Your task to perform on an android device: Open calendar and show me the second week of next month Image 0: 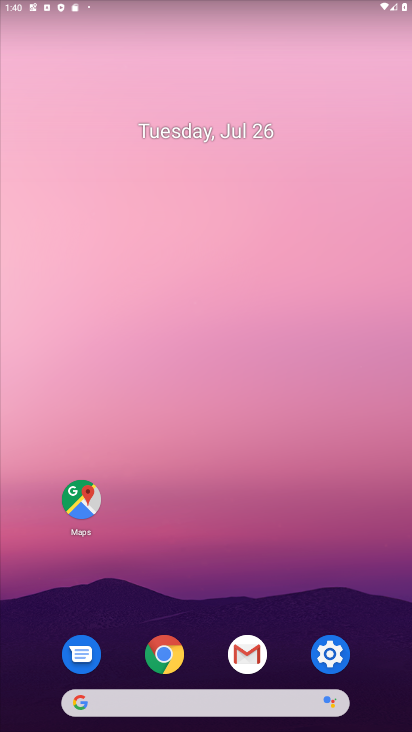
Step 0: drag from (277, 685) to (262, 301)
Your task to perform on an android device: Open calendar and show me the second week of next month Image 1: 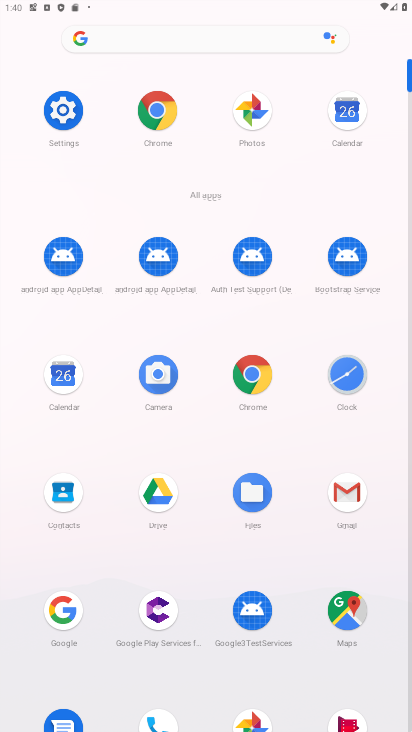
Step 1: click (62, 386)
Your task to perform on an android device: Open calendar and show me the second week of next month Image 2: 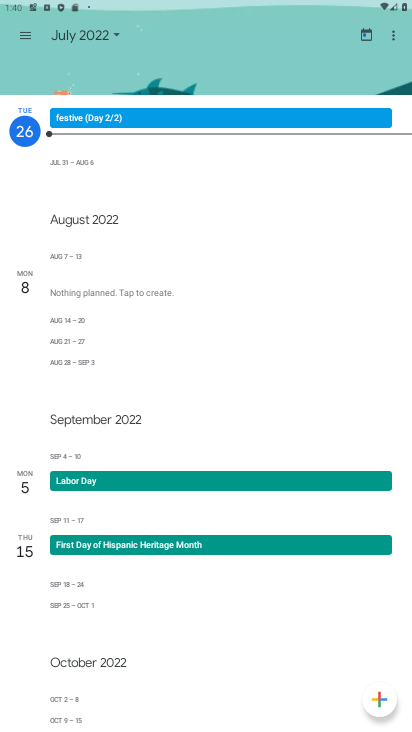
Step 2: click (18, 40)
Your task to perform on an android device: Open calendar and show me the second week of next month Image 3: 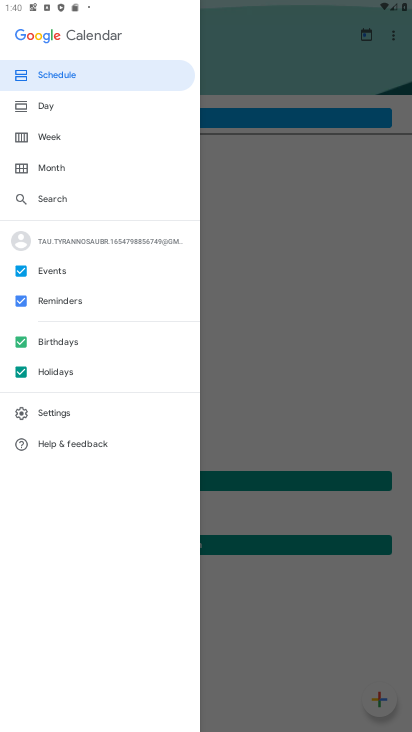
Step 3: click (72, 175)
Your task to perform on an android device: Open calendar and show me the second week of next month Image 4: 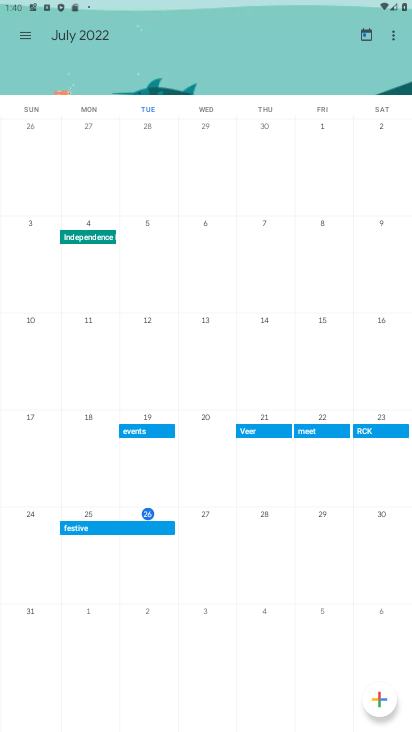
Step 4: drag from (391, 437) to (20, 521)
Your task to perform on an android device: Open calendar and show me the second week of next month Image 5: 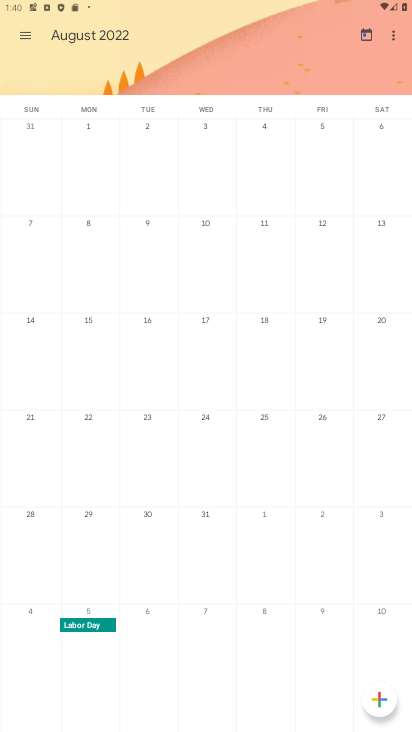
Step 5: drag from (387, 468) to (349, 480)
Your task to perform on an android device: Open calendar and show me the second week of next month Image 6: 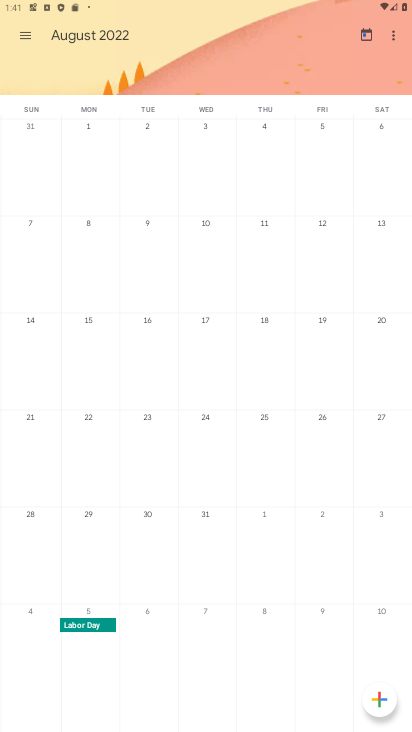
Step 6: click (85, 230)
Your task to perform on an android device: Open calendar and show me the second week of next month Image 7: 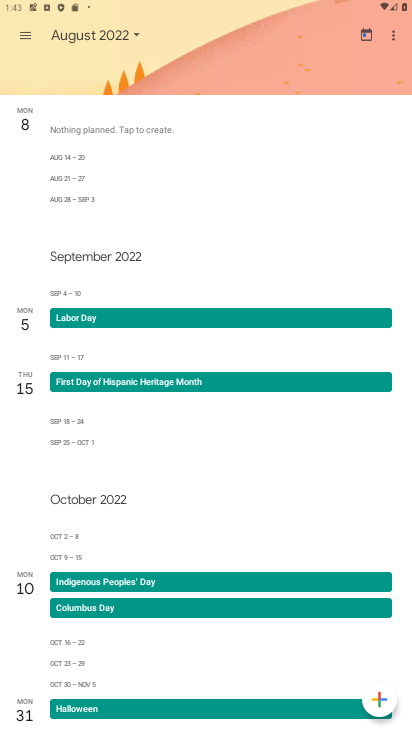
Step 7: task complete